Your task to perform on an android device: empty trash in the gmail app Image 0: 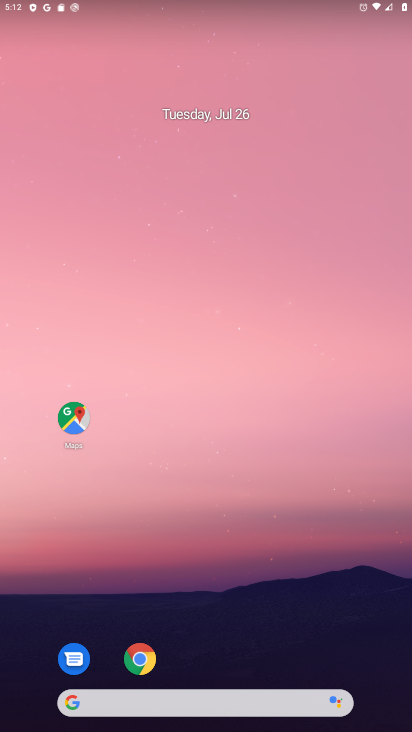
Step 0: drag from (243, 648) to (283, 187)
Your task to perform on an android device: empty trash in the gmail app Image 1: 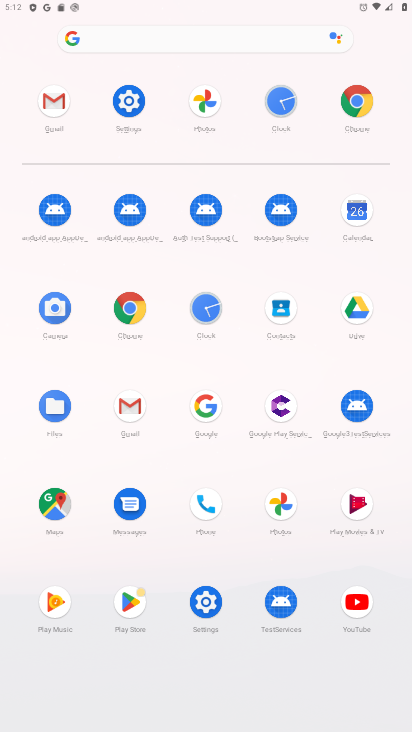
Step 1: click (131, 404)
Your task to perform on an android device: empty trash in the gmail app Image 2: 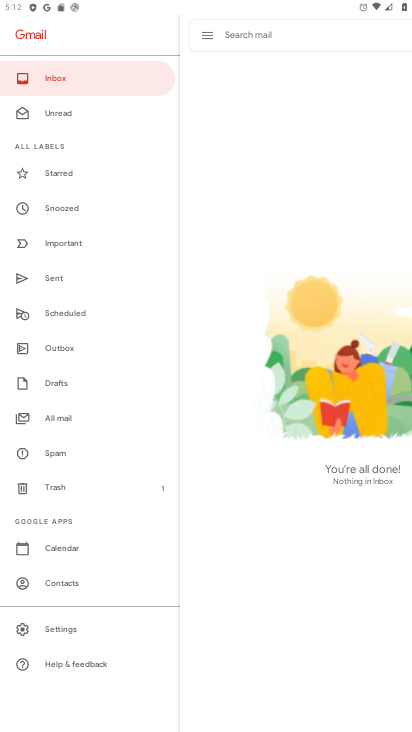
Step 2: click (65, 478)
Your task to perform on an android device: empty trash in the gmail app Image 3: 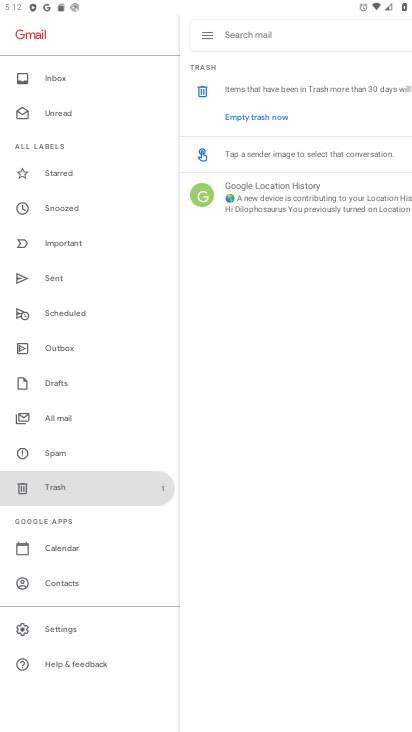
Step 3: click (244, 112)
Your task to perform on an android device: empty trash in the gmail app Image 4: 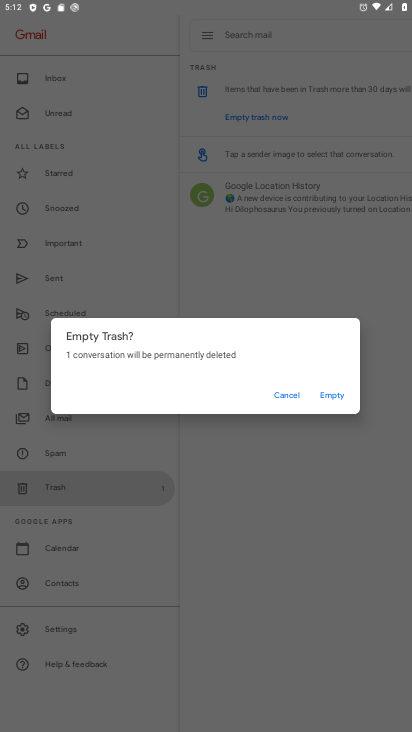
Step 4: click (336, 397)
Your task to perform on an android device: empty trash in the gmail app Image 5: 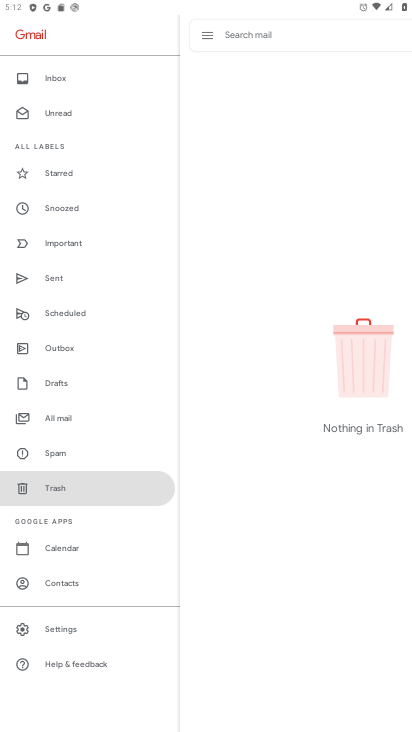
Step 5: task complete